Your task to perform on an android device: What's the weather going to be this weekend? Image 0: 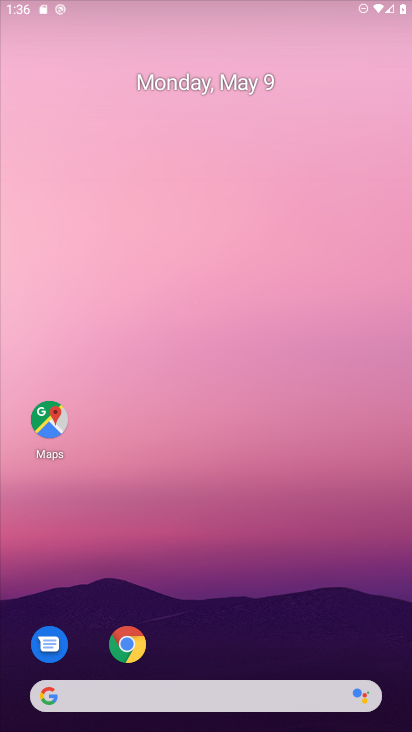
Step 0: drag from (266, 609) to (293, 184)
Your task to perform on an android device: What's the weather going to be this weekend? Image 1: 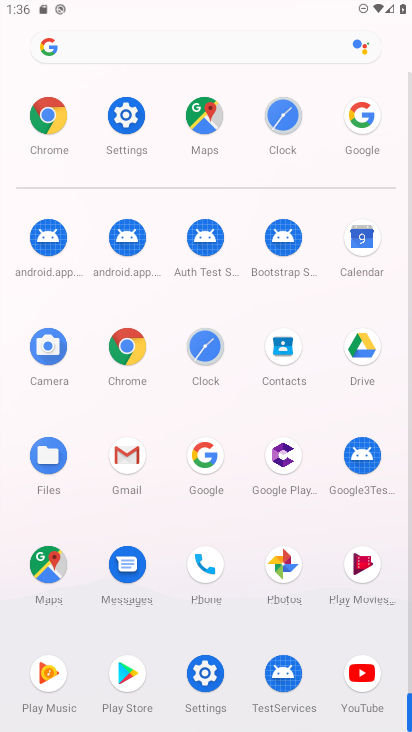
Step 1: click (215, 495)
Your task to perform on an android device: What's the weather going to be this weekend? Image 2: 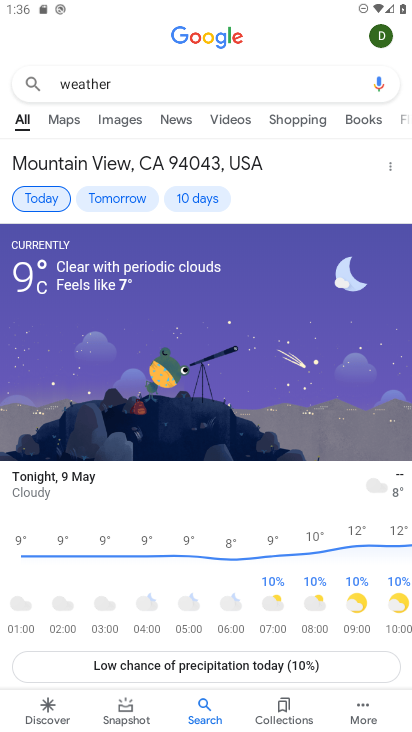
Step 2: click (181, 202)
Your task to perform on an android device: What's the weather going to be this weekend? Image 3: 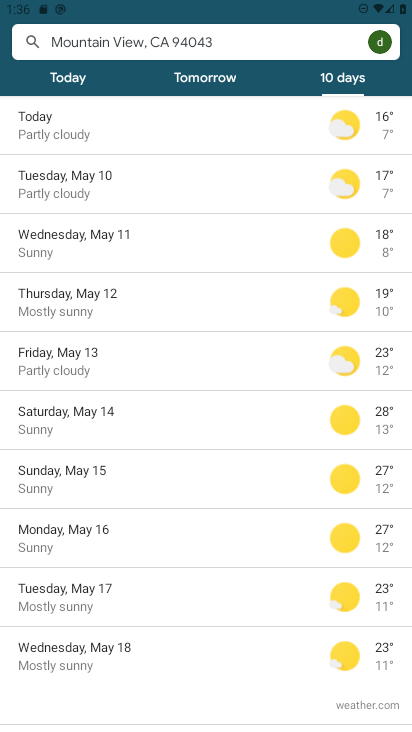
Step 3: task complete